Your task to perform on an android device: read, delete, or share a saved page in the chrome app Image 0: 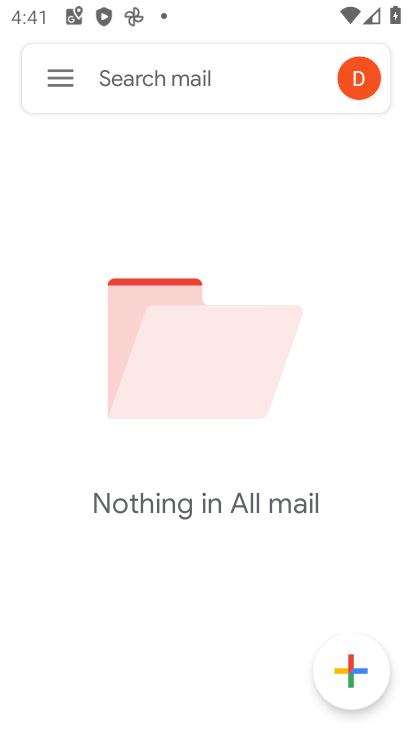
Step 0: press home button
Your task to perform on an android device: read, delete, or share a saved page in the chrome app Image 1: 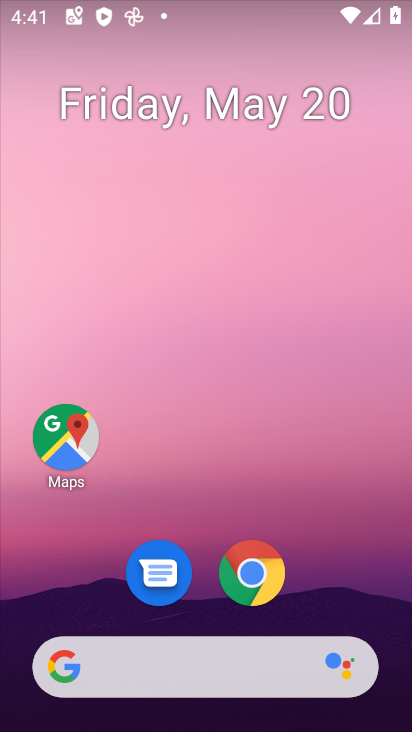
Step 1: click (253, 582)
Your task to perform on an android device: read, delete, or share a saved page in the chrome app Image 2: 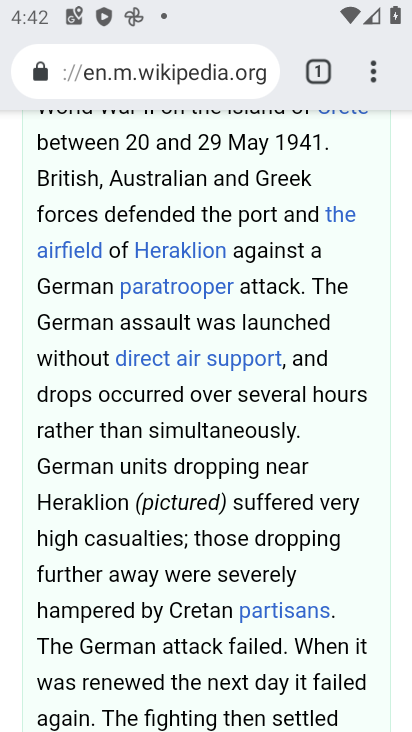
Step 2: click (374, 80)
Your task to perform on an android device: read, delete, or share a saved page in the chrome app Image 3: 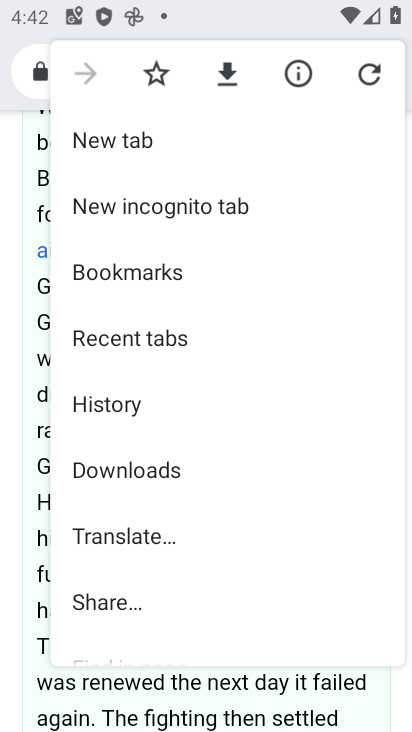
Step 3: click (129, 464)
Your task to perform on an android device: read, delete, or share a saved page in the chrome app Image 4: 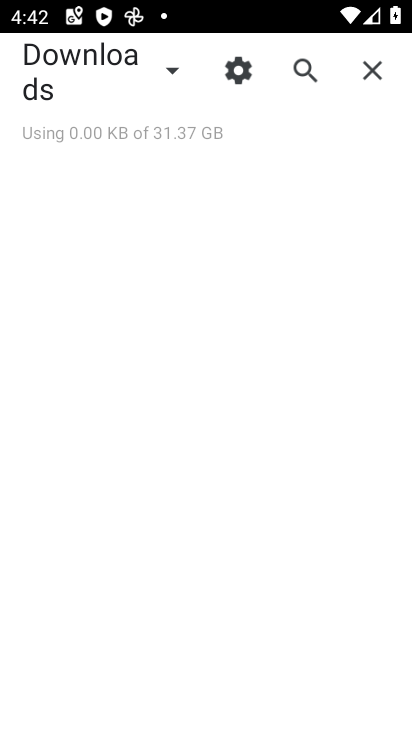
Step 4: click (172, 68)
Your task to perform on an android device: read, delete, or share a saved page in the chrome app Image 5: 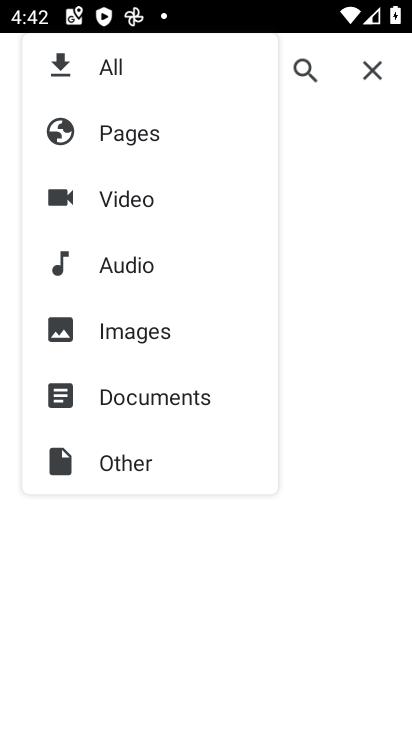
Step 5: click (129, 138)
Your task to perform on an android device: read, delete, or share a saved page in the chrome app Image 6: 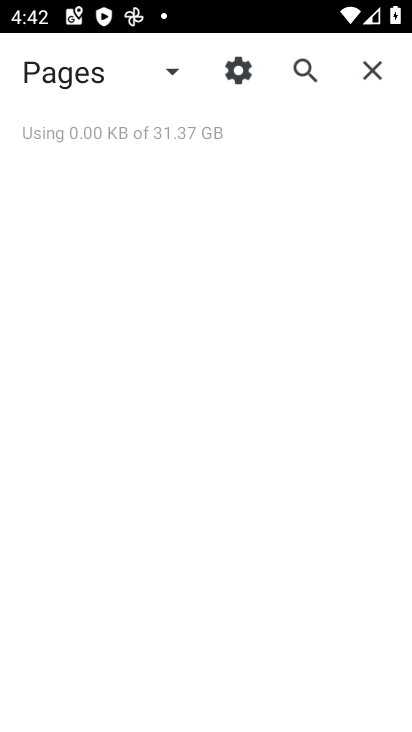
Step 6: task complete